Your task to perform on an android device: Open Google Maps Image 0: 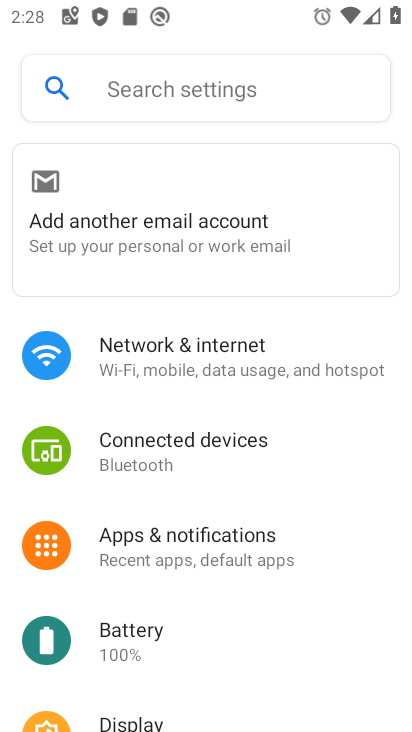
Step 0: press home button
Your task to perform on an android device: Open Google Maps Image 1: 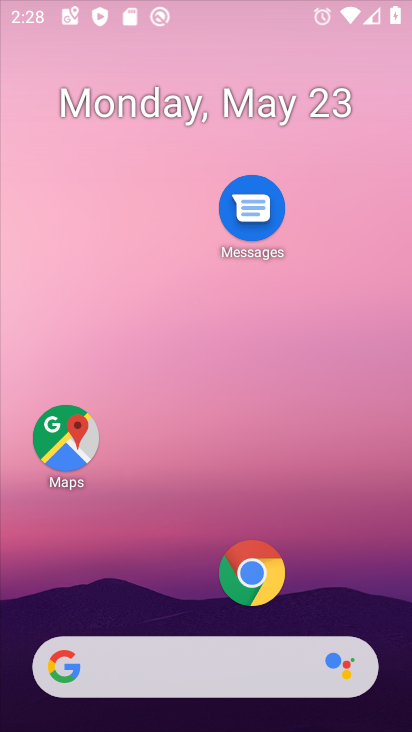
Step 1: drag from (332, 544) to (320, 18)
Your task to perform on an android device: Open Google Maps Image 2: 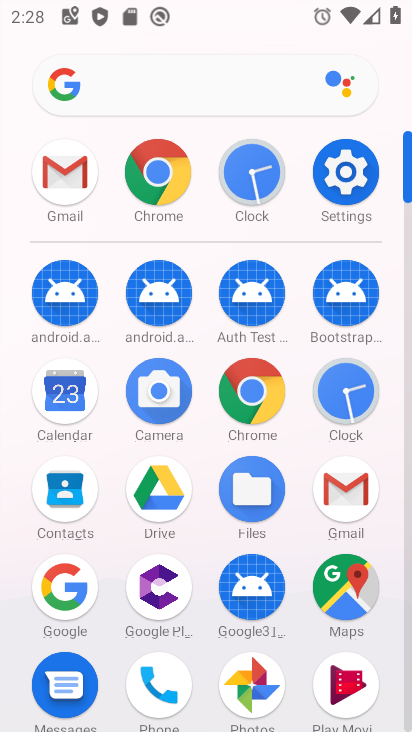
Step 2: click (341, 601)
Your task to perform on an android device: Open Google Maps Image 3: 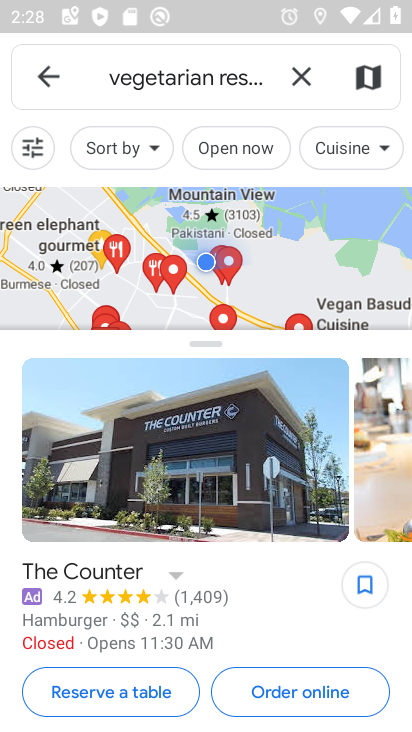
Step 3: task complete